Your task to perform on an android device: Show me popular videos on Youtube Image 0: 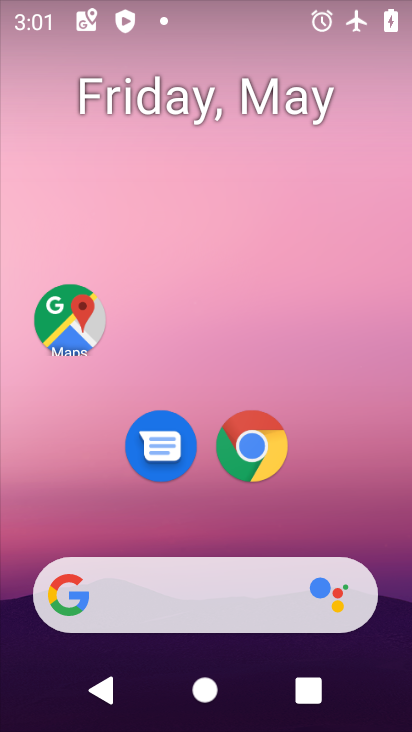
Step 0: drag from (309, 5) to (319, 367)
Your task to perform on an android device: Show me popular videos on Youtube Image 1: 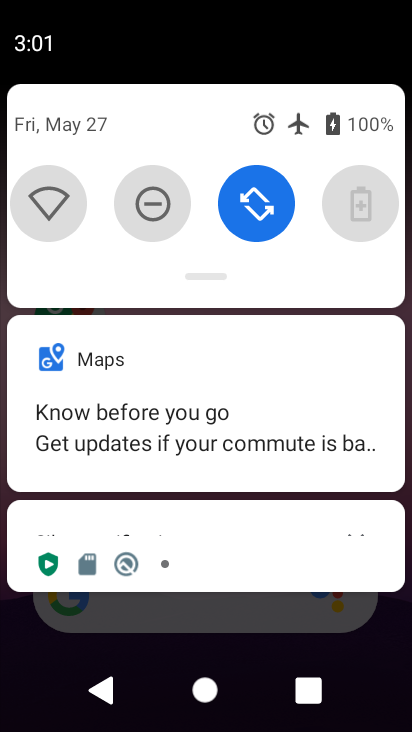
Step 1: drag from (315, 243) to (322, 547)
Your task to perform on an android device: Show me popular videos on Youtube Image 2: 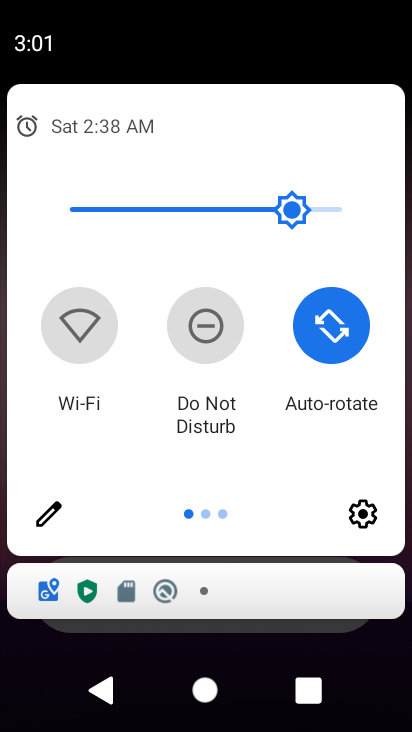
Step 2: drag from (361, 427) to (88, 414)
Your task to perform on an android device: Show me popular videos on Youtube Image 3: 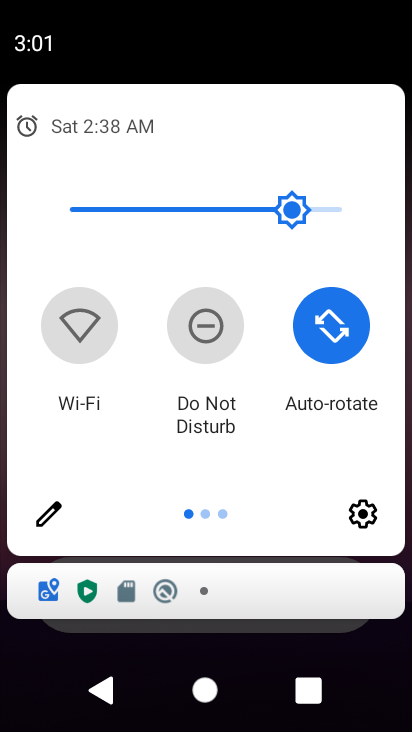
Step 3: drag from (394, 366) to (11, 354)
Your task to perform on an android device: Show me popular videos on Youtube Image 4: 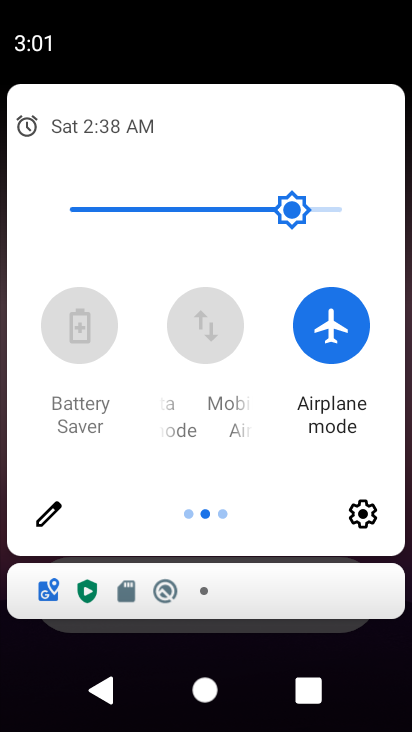
Step 4: click (343, 331)
Your task to perform on an android device: Show me popular videos on Youtube Image 5: 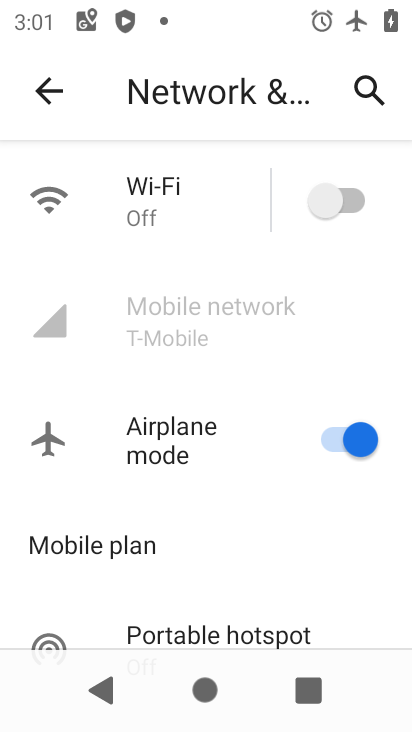
Step 5: press home button
Your task to perform on an android device: Show me popular videos on Youtube Image 6: 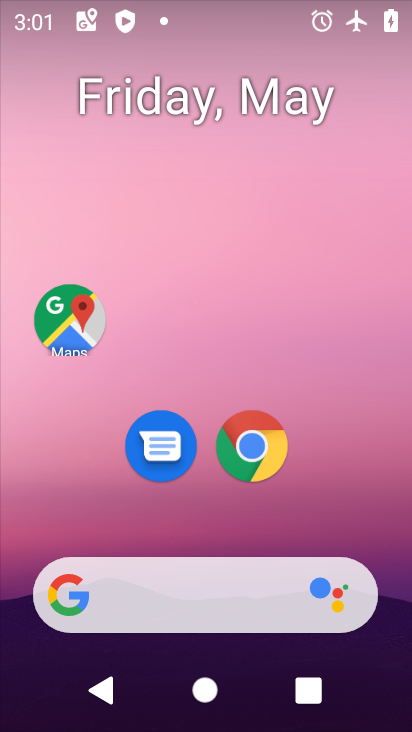
Step 6: drag from (364, 540) to (305, 110)
Your task to perform on an android device: Show me popular videos on Youtube Image 7: 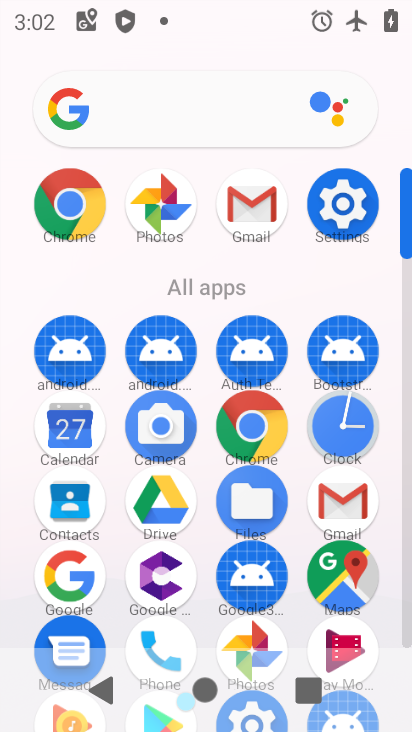
Step 7: click (406, 626)
Your task to perform on an android device: Show me popular videos on Youtube Image 8: 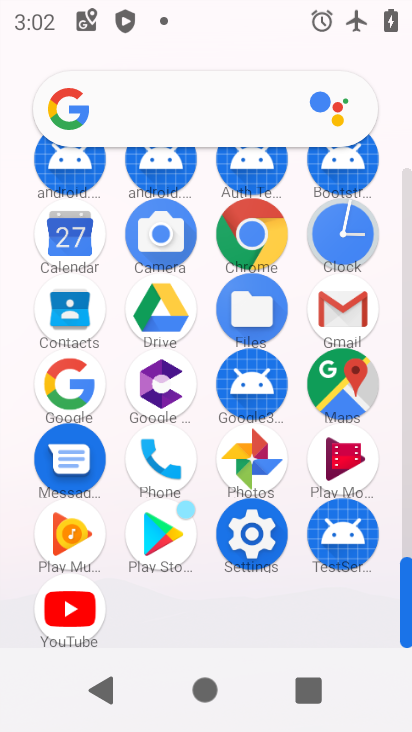
Step 8: click (70, 609)
Your task to perform on an android device: Show me popular videos on Youtube Image 9: 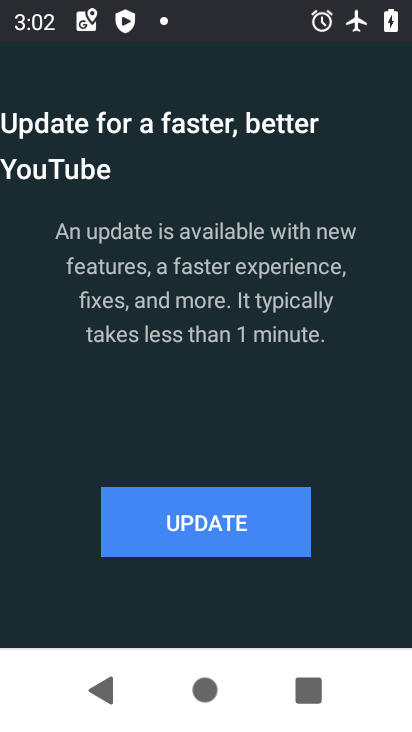
Step 9: click (181, 539)
Your task to perform on an android device: Show me popular videos on Youtube Image 10: 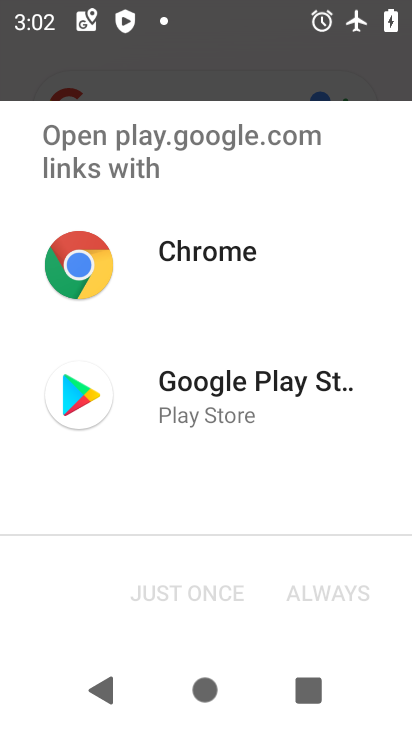
Step 10: click (199, 405)
Your task to perform on an android device: Show me popular videos on Youtube Image 11: 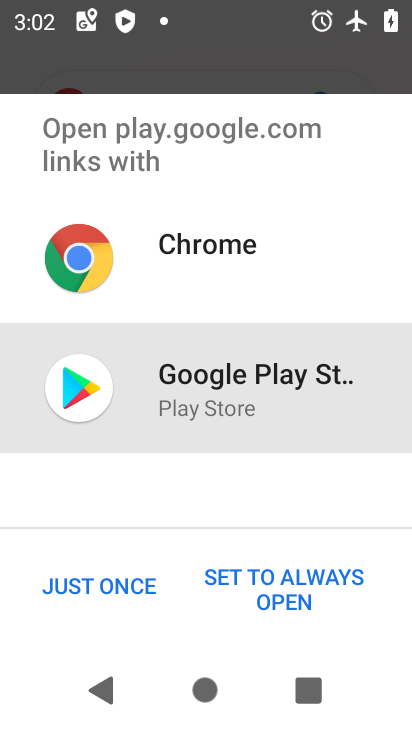
Step 11: click (128, 596)
Your task to perform on an android device: Show me popular videos on Youtube Image 12: 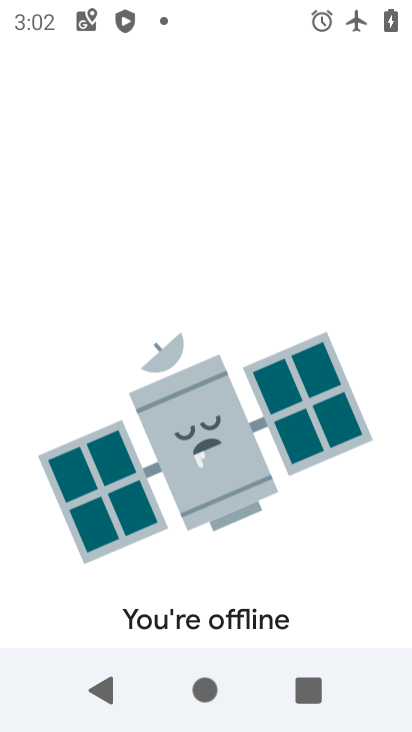
Step 12: task complete